Your task to perform on an android device: Open the phone app and click the voicemail tab. Image 0: 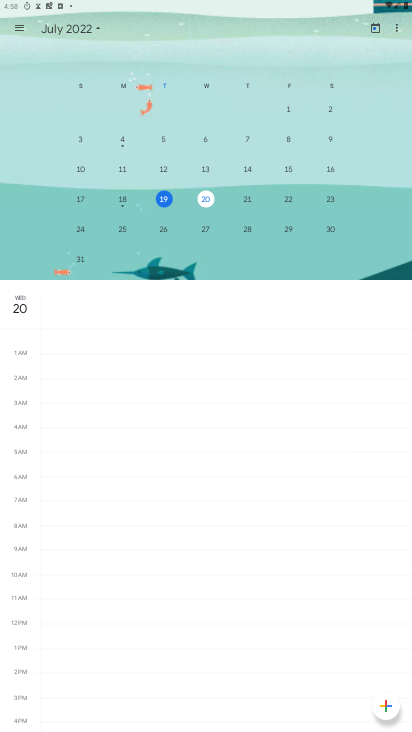
Step 0: press home button
Your task to perform on an android device: Open the phone app and click the voicemail tab. Image 1: 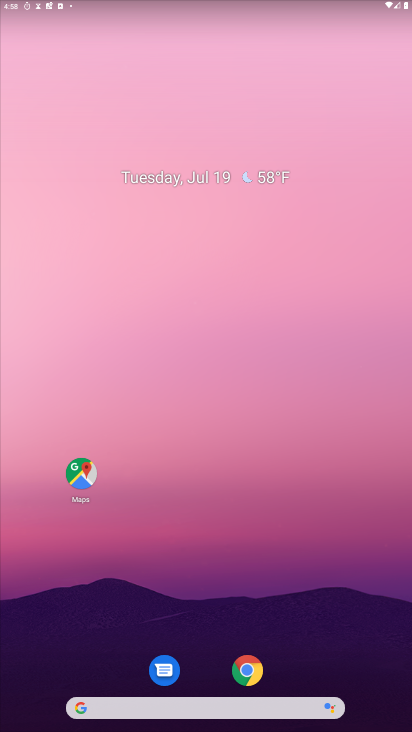
Step 1: drag from (235, 674) to (296, 12)
Your task to perform on an android device: Open the phone app and click the voicemail tab. Image 2: 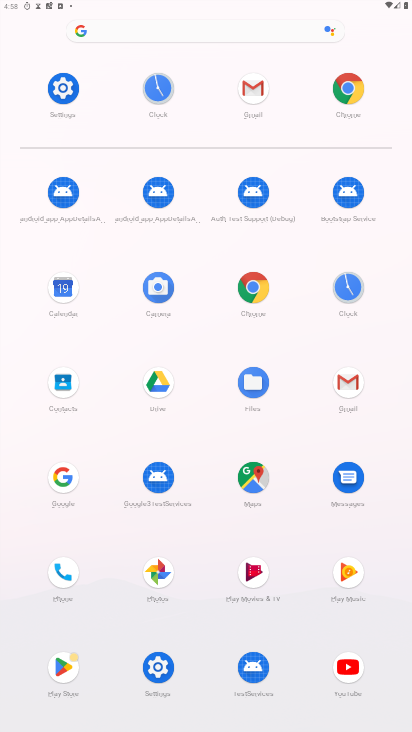
Step 2: click (64, 575)
Your task to perform on an android device: Open the phone app and click the voicemail tab. Image 3: 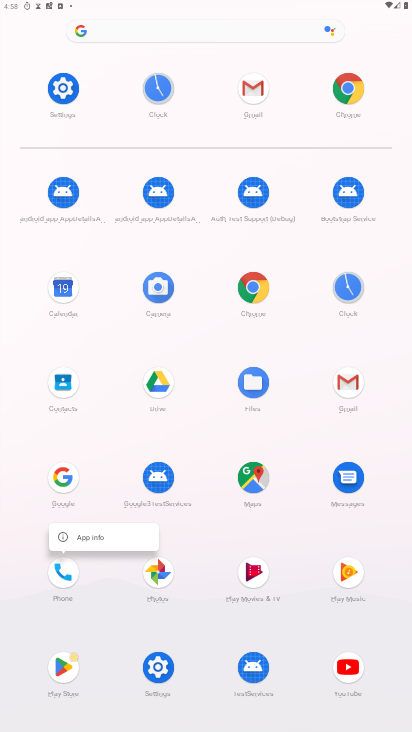
Step 3: click (61, 569)
Your task to perform on an android device: Open the phone app and click the voicemail tab. Image 4: 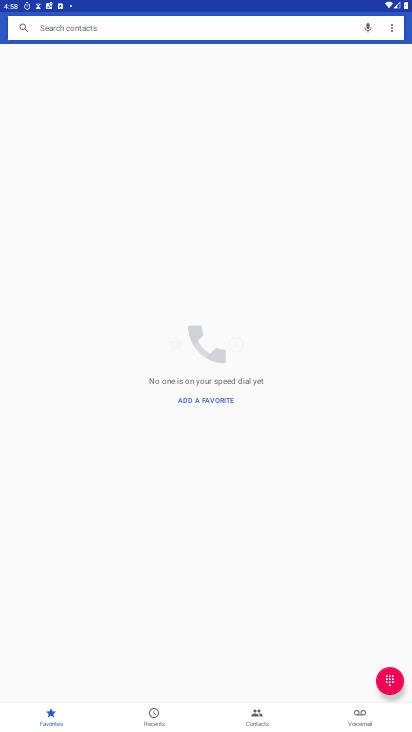
Step 4: click (362, 712)
Your task to perform on an android device: Open the phone app and click the voicemail tab. Image 5: 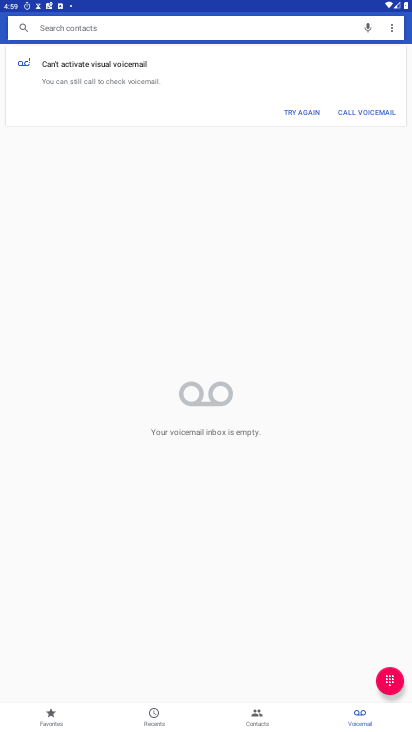
Step 5: task complete